Your task to perform on an android device: Go to display settings Image 0: 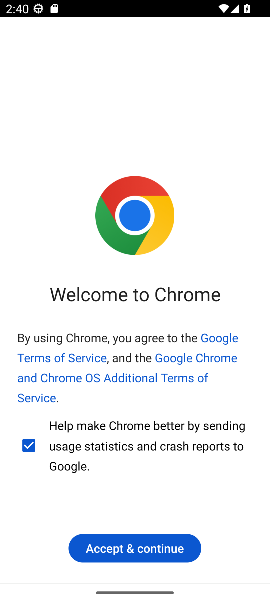
Step 0: press home button
Your task to perform on an android device: Go to display settings Image 1: 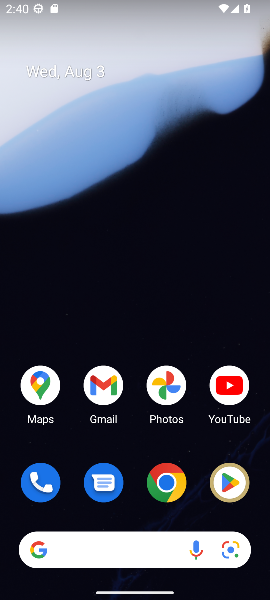
Step 1: drag from (113, 552) to (193, 94)
Your task to perform on an android device: Go to display settings Image 2: 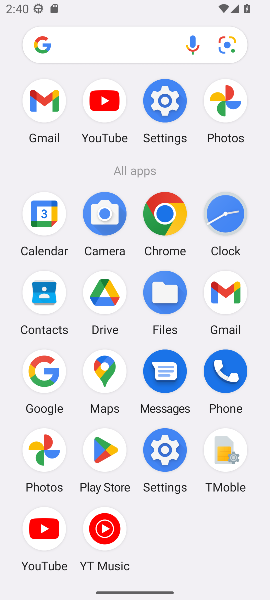
Step 2: click (172, 100)
Your task to perform on an android device: Go to display settings Image 3: 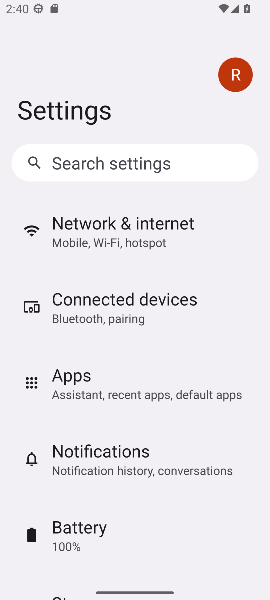
Step 3: drag from (121, 505) to (220, 163)
Your task to perform on an android device: Go to display settings Image 4: 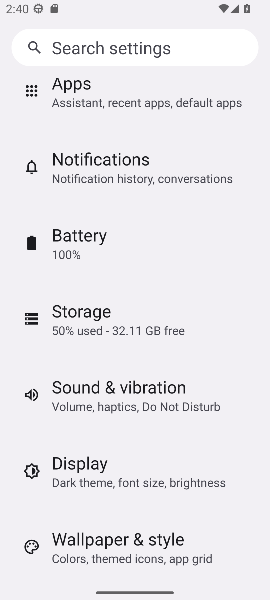
Step 4: click (86, 461)
Your task to perform on an android device: Go to display settings Image 5: 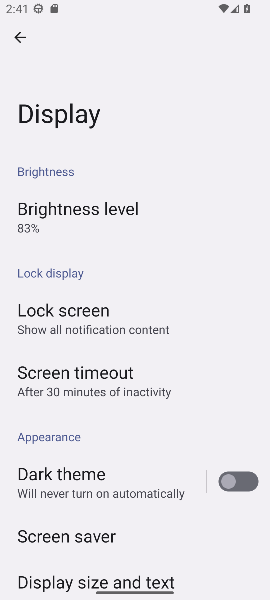
Step 5: task complete